Your task to perform on an android device: turn off improve location accuracy Image 0: 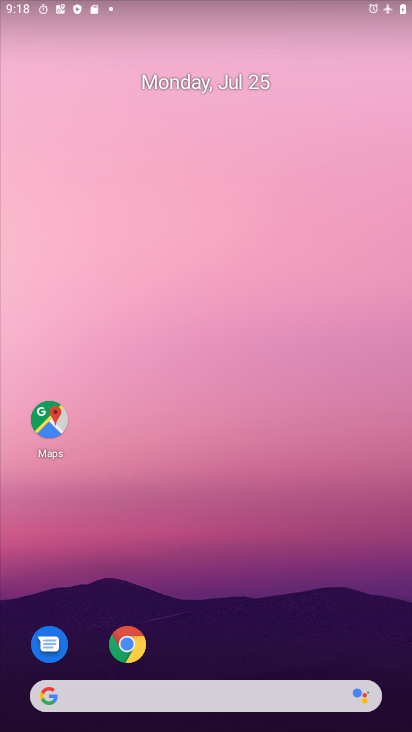
Step 0: drag from (249, 576) to (245, 125)
Your task to perform on an android device: turn off improve location accuracy Image 1: 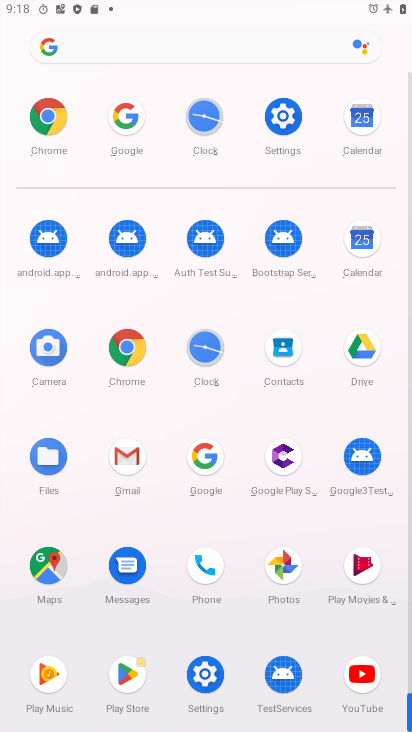
Step 1: click (193, 680)
Your task to perform on an android device: turn off improve location accuracy Image 2: 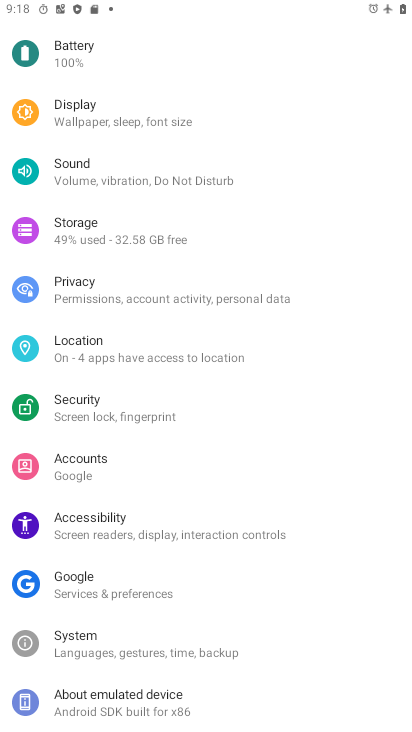
Step 2: click (150, 350)
Your task to perform on an android device: turn off improve location accuracy Image 3: 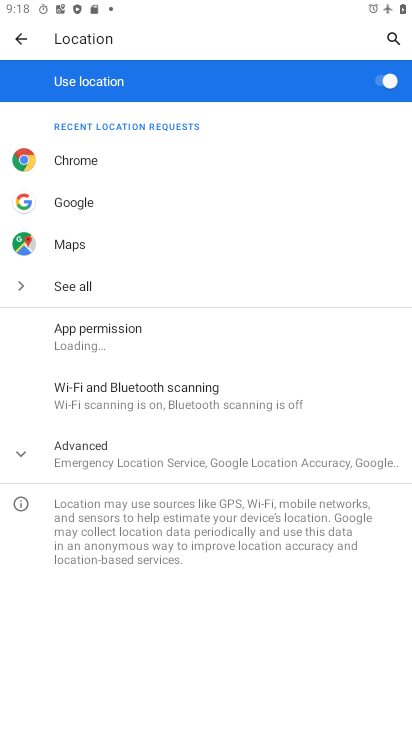
Step 3: click (160, 467)
Your task to perform on an android device: turn off improve location accuracy Image 4: 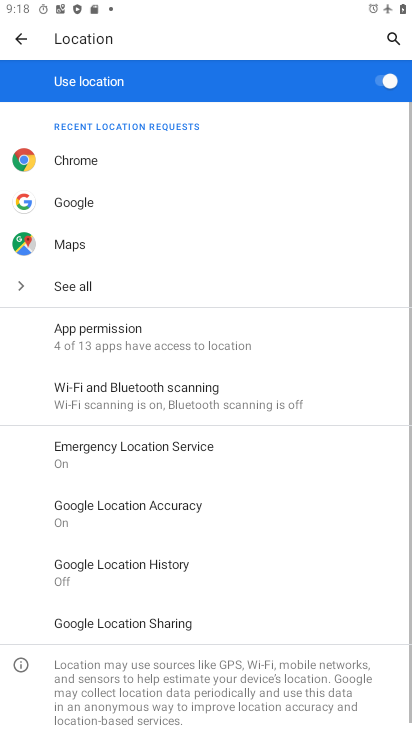
Step 4: click (156, 519)
Your task to perform on an android device: turn off improve location accuracy Image 5: 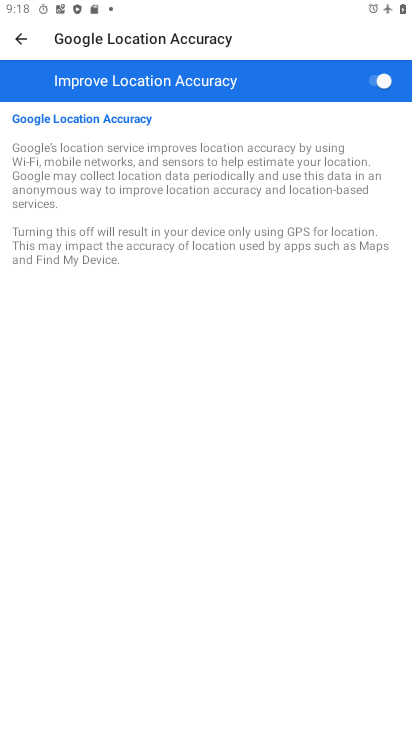
Step 5: click (379, 100)
Your task to perform on an android device: turn off improve location accuracy Image 6: 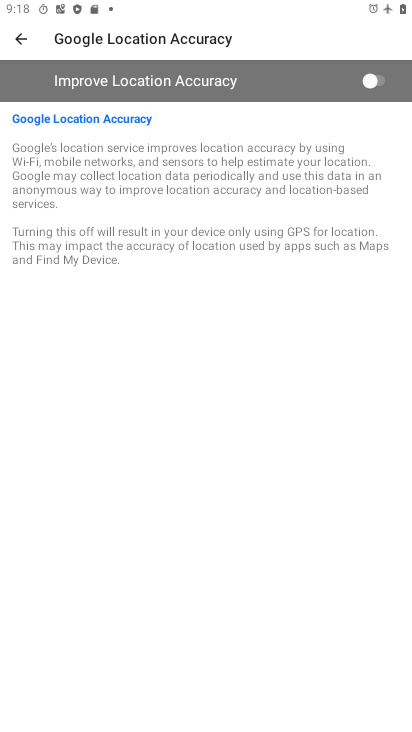
Step 6: task complete